Your task to perform on an android device: change the clock display to show seconds Image 0: 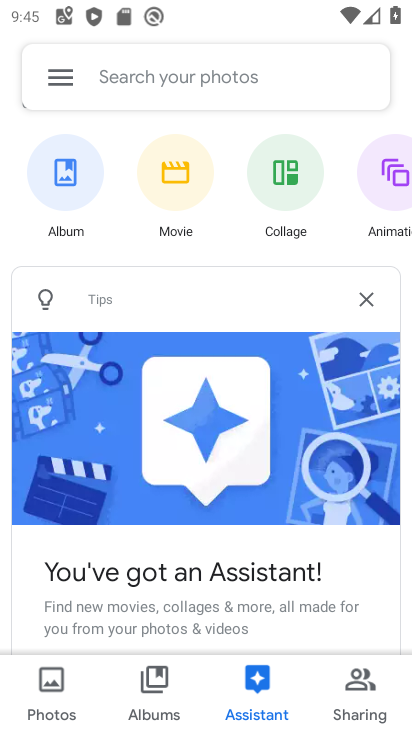
Step 0: press home button
Your task to perform on an android device: change the clock display to show seconds Image 1: 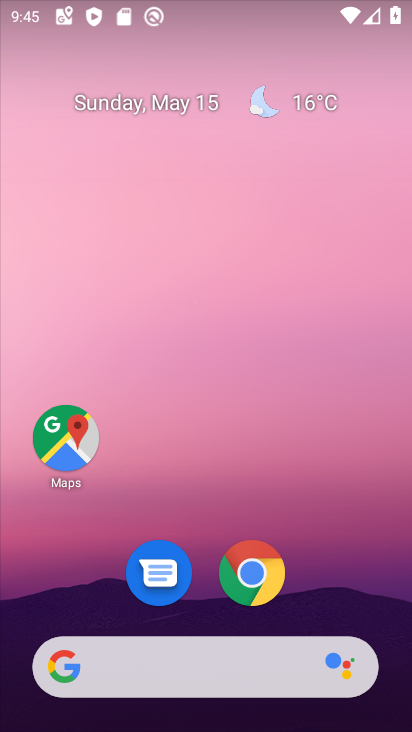
Step 1: drag from (344, 594) to (360, 13)
Your task to perform on an android device: change the clock display to show seconds Image 2: 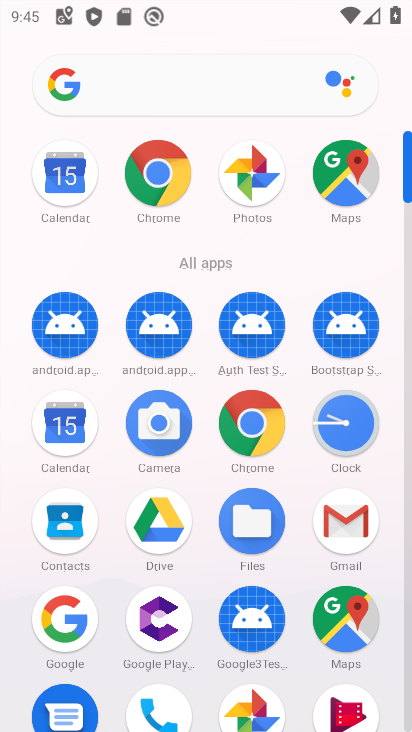
Step 2: click (341, 436)
Your task to perform on an android device: change the clock display to show seconds Image 3: 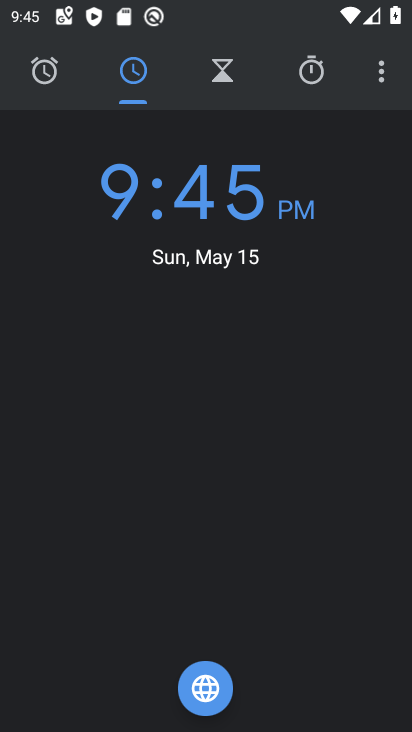
Step 3: click (400, 65)
Your task to perform on an android device: change the clock display to show seconds Image 4: 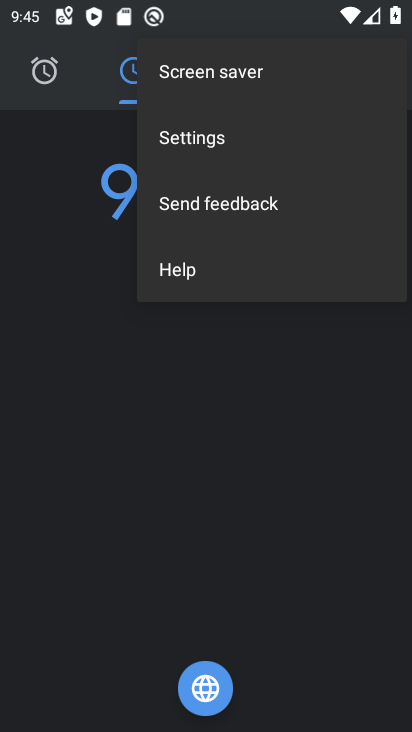
Step 4: click (337, 140)
Your task to perform on an android device: change the clock display to show seconds Image 5: 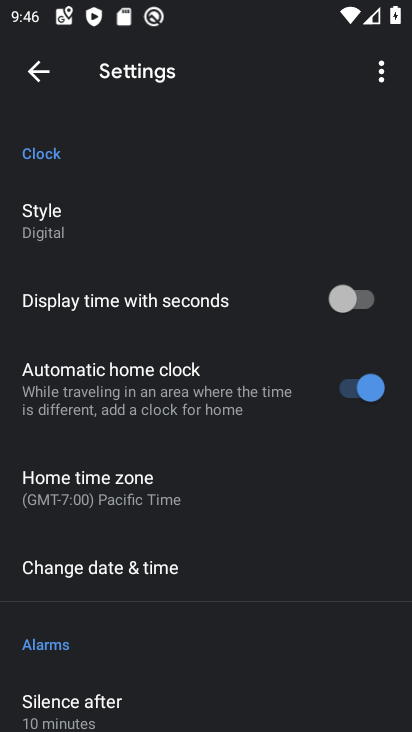
Step 5: task complete